Your task to perform on an android device: allow notifications from all sites in the chrome app Image 0: 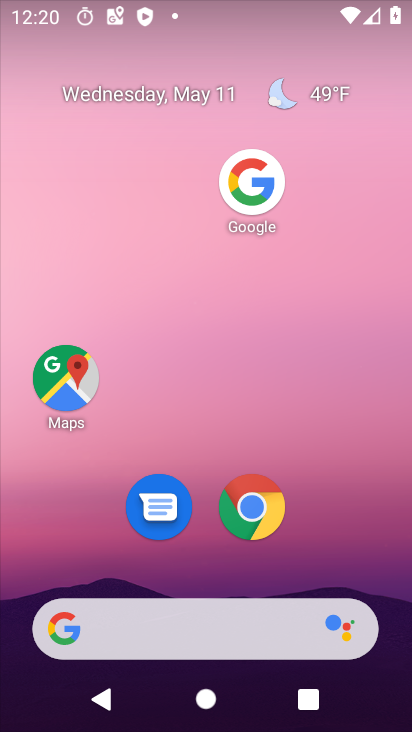
Step 0: click (238, 508)
Your task to perform on an android device: allow notifications from all sites in the chrome app Image 1: 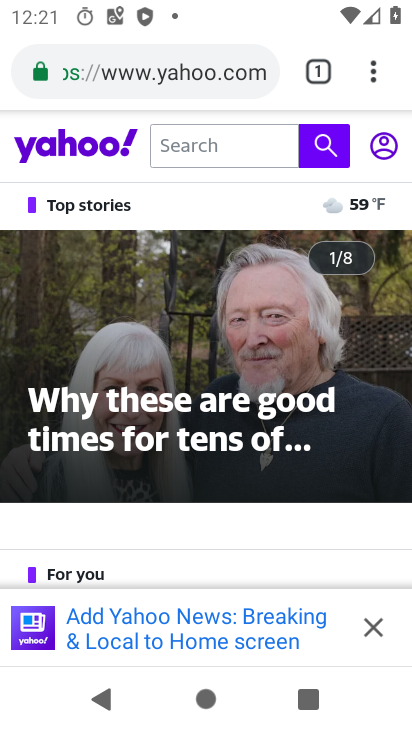
Step 1: click (364, 62)
Your task to perform on an android device: allow notifications from all sites in the chrome app Image 2: 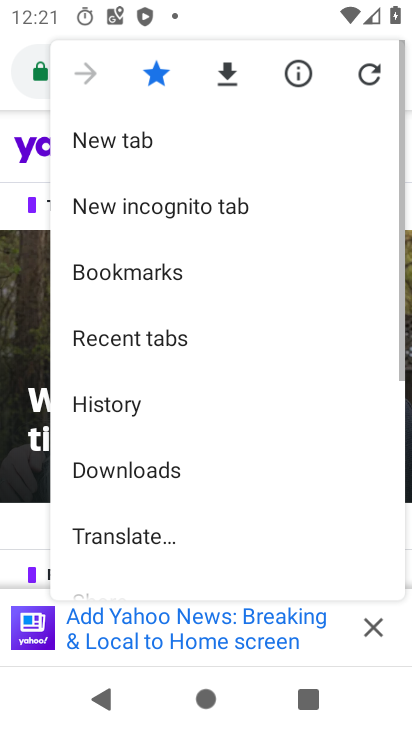
Step 2: drag from (188, 386) to (246, 76)
Your task to perform on an android device: allow notifications from all sites in the chrome app Image 3: 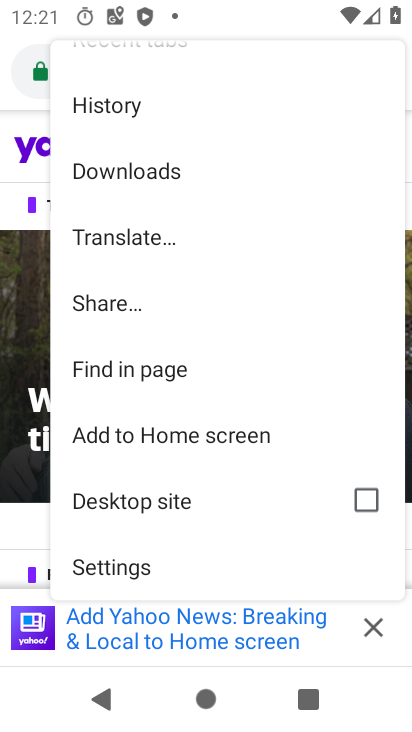
Step 3: click (110, 568)
Your task to perform on an android device: allow notifications from all sites in the chrome app Image 4: 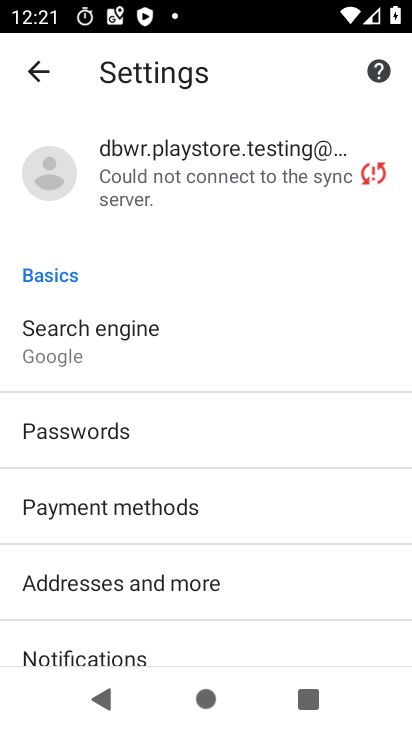
Step 4: drag from (241, 541) to (247, 183)
Your task to perform on an android device: allow notifications from all sites in the chrome app Image 5: 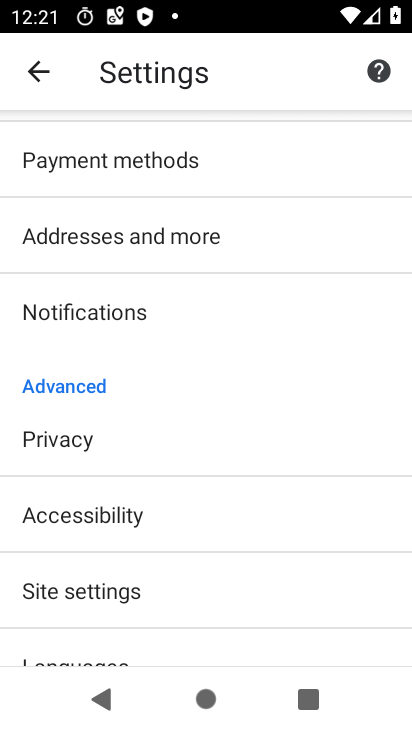
Step 5: drag from (248, 566) to (265, 196)
Your task to perform on an android device: allow notifications from all sites in the chrome app Image 6: 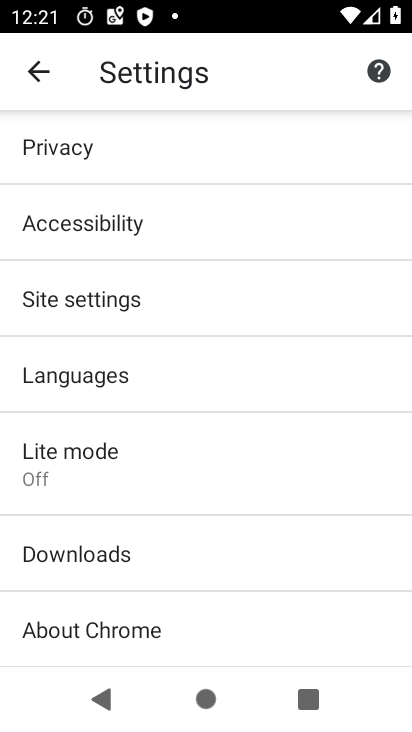
Step 6: click (89, 297)
Your task to perform on an android device: allow notifications from all sites in the chrome app Image 7: 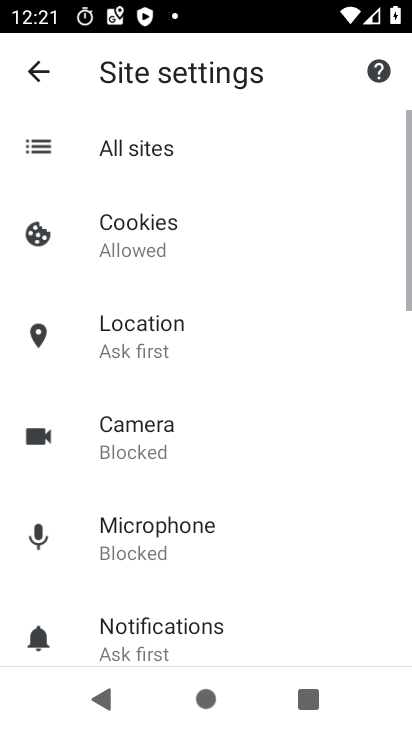
Step 7: drag from (220, 558) to (237, 324)
Your task to perform on an android device: allow notifications from all sites in the chrome app Image 8: 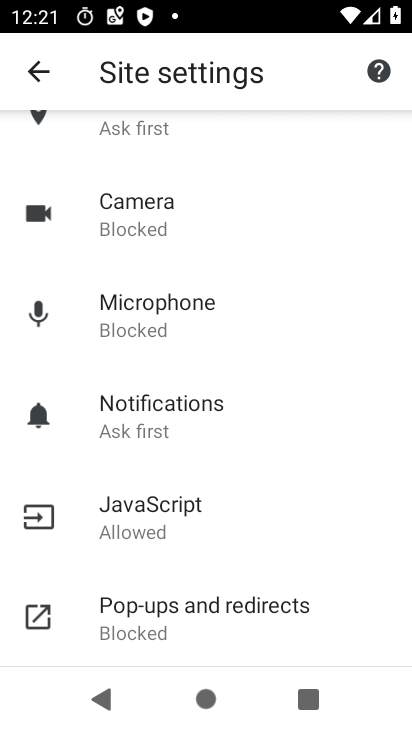
Step 8: click (160, 404)
Your task to perform on an android device: allow notifications from all sites in the chrome app Image 9: 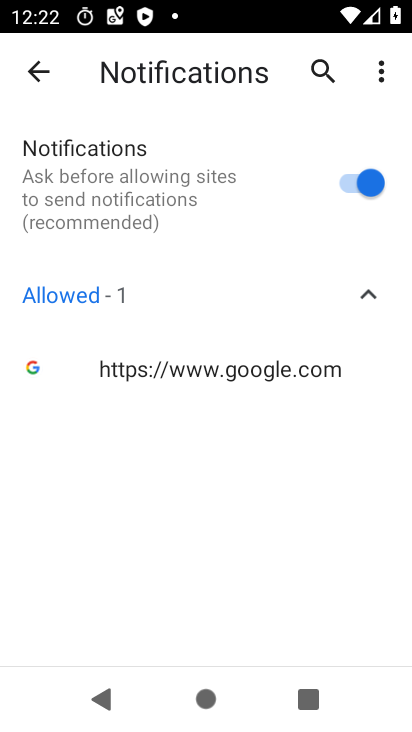
Step 9: task complete